Your task to perform on an android device: When is my next appointment? Image 0: 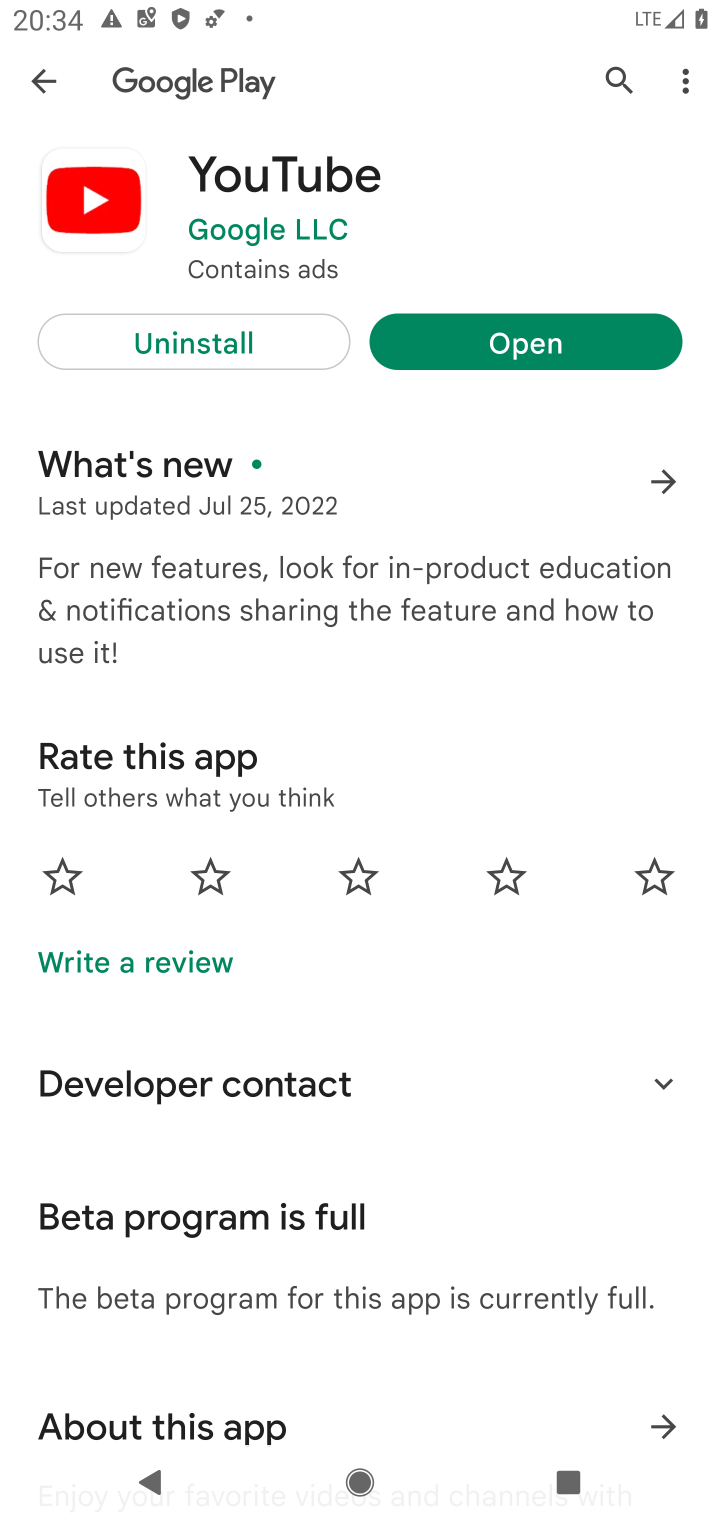
Step 0: press home button
Your task to perform on an android device: When is my next appointment? Image 1: 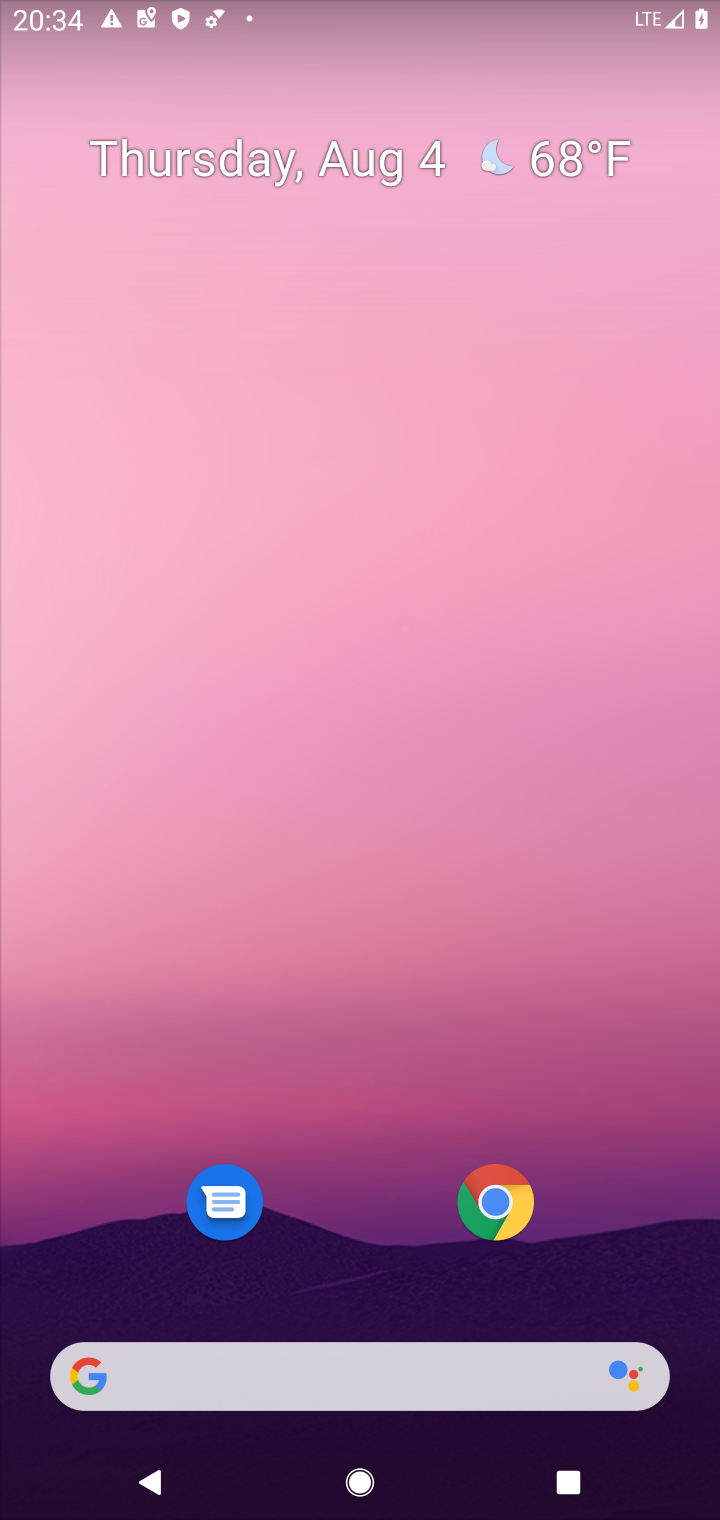
Step 1: drag from (341, 1201) to (343, 203)
Your task to perform on an android device: When is my next appointment? Image 2: 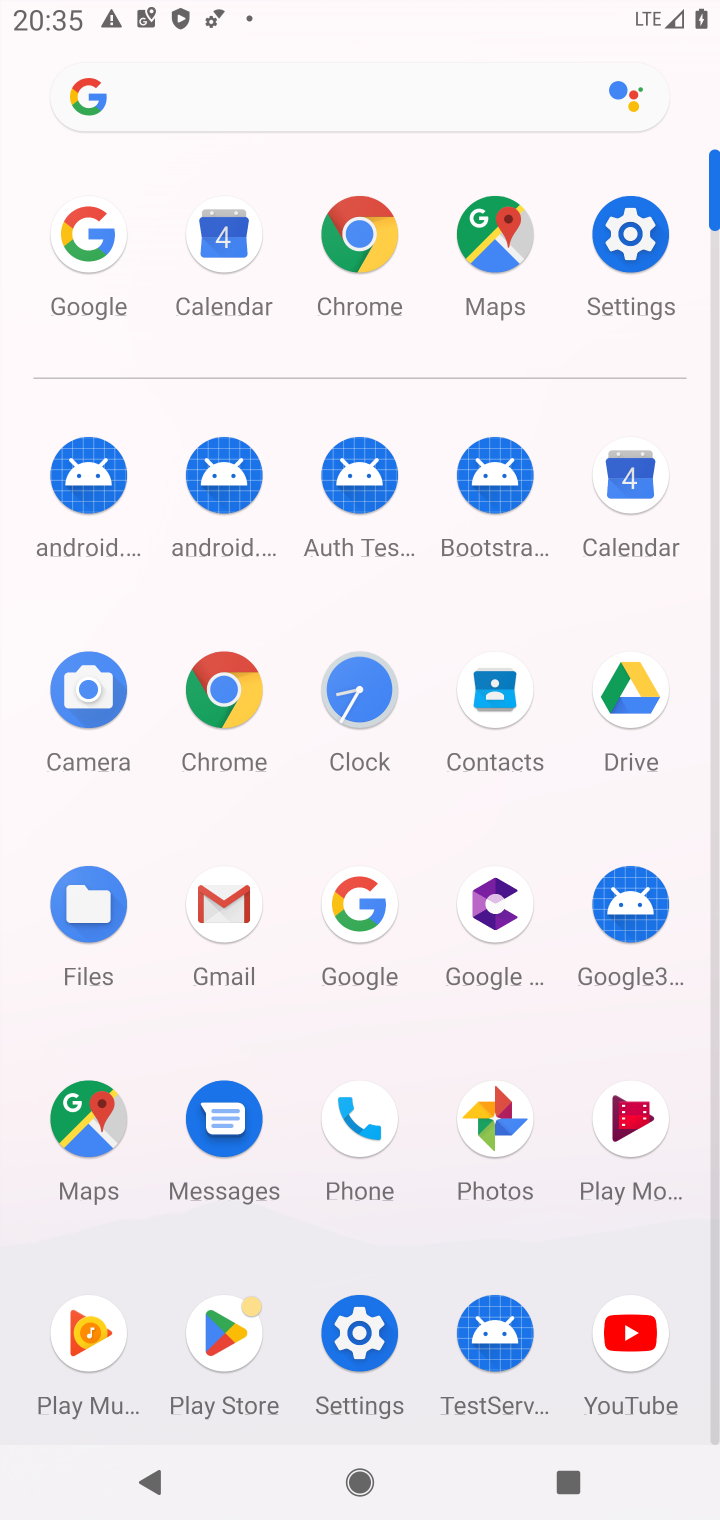
Step 2: click (627, 514)
Your task to perform on an android device: When is my next appointment? Image 3: 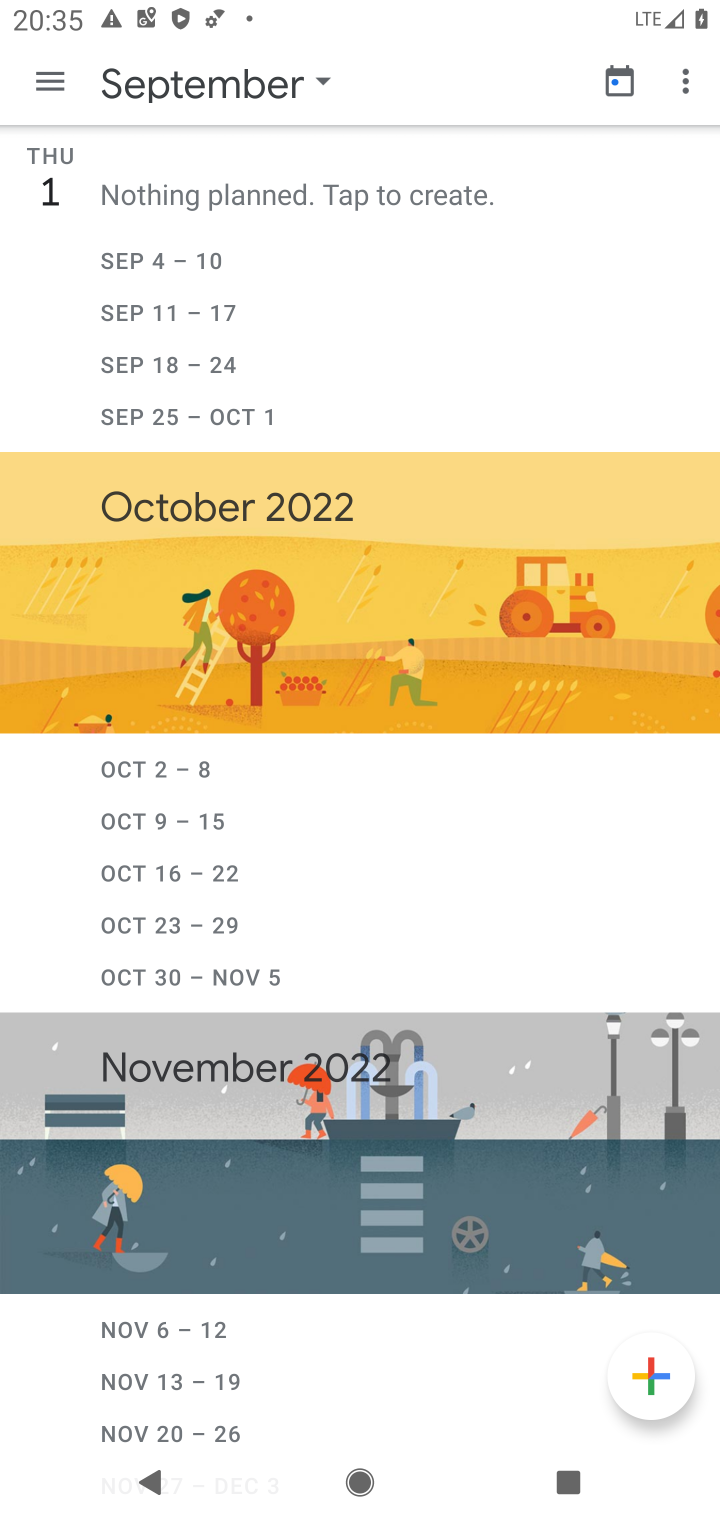
Step 3: click (305, 86)
Your task to perform on an android device: When is my next appointment? Image 4: 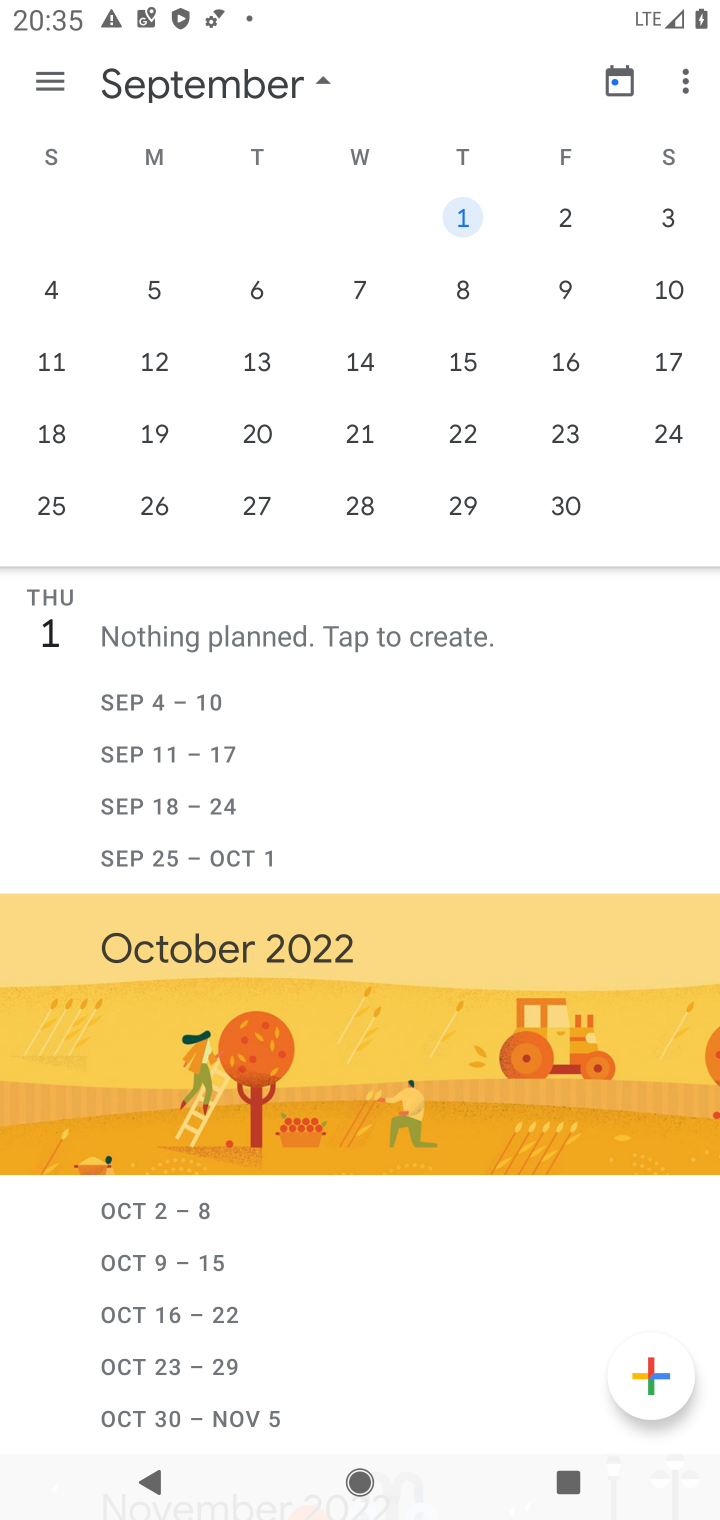
Step 4: click (296, 102)
Your task to perform on an android device: When is my next appointment? Image 5: 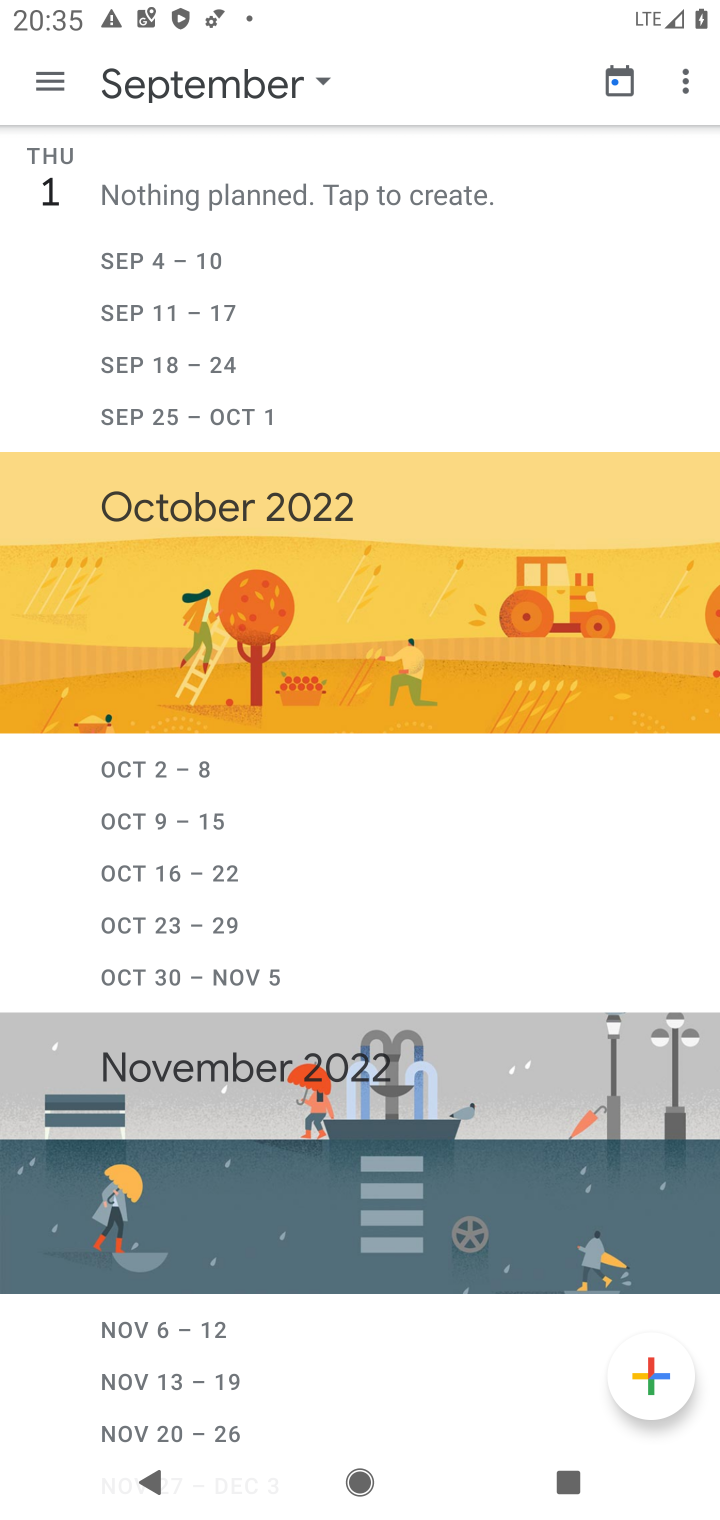
Step 5: click (296, 102)
Your task to perform on an android device: When is my next appointment? Image 6: 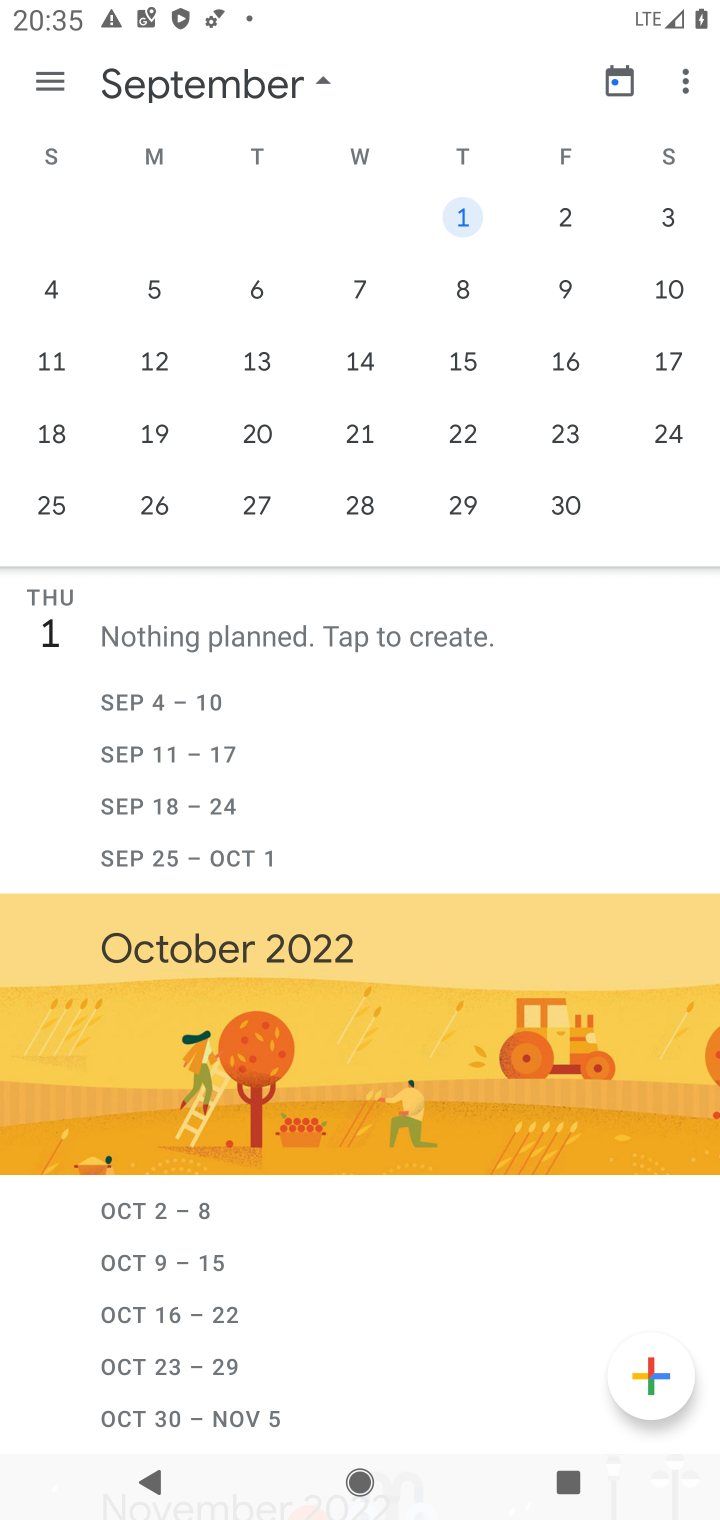
Step 6: drag from (113, 351) to (598, 343)
Your task to perform on an android device: When is my next appointment? Image 7: 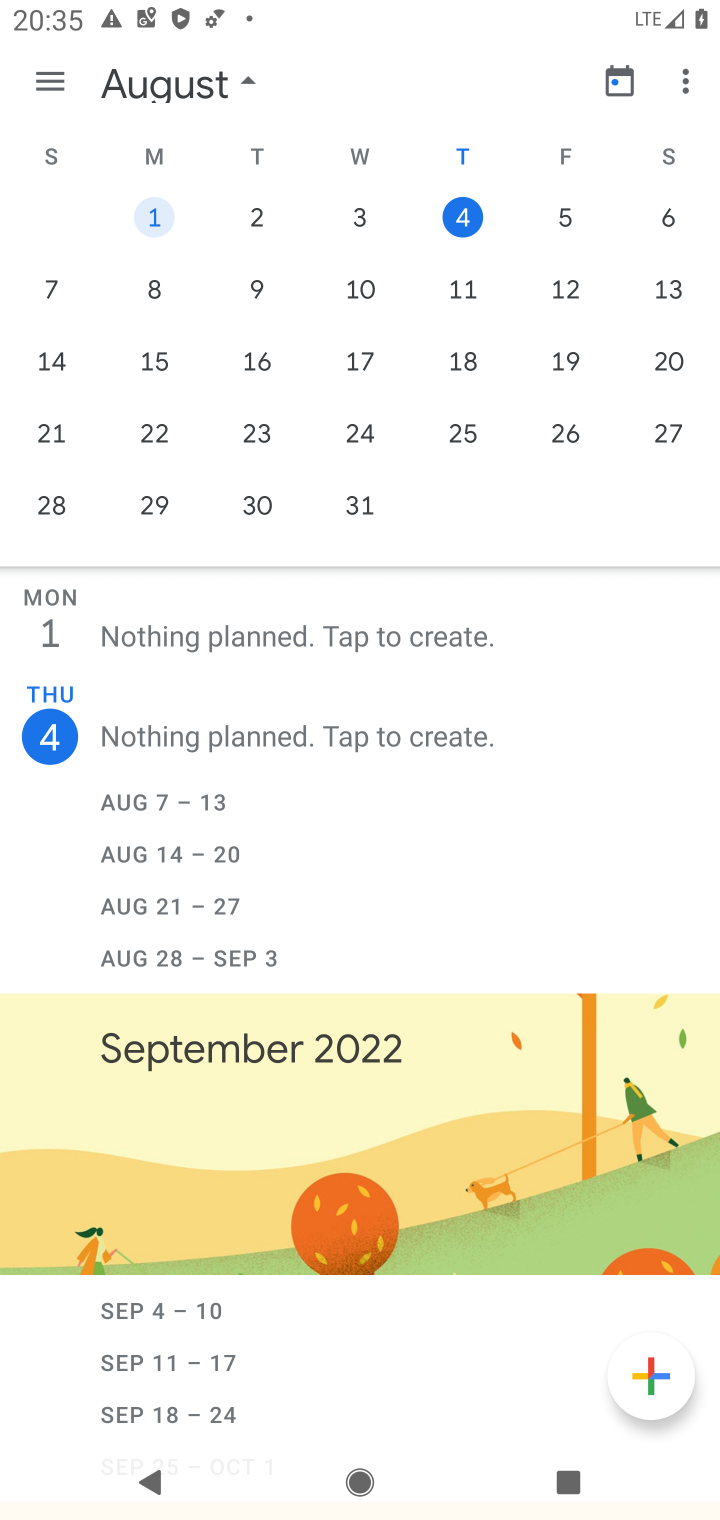
Step 7: click (535, 214)
Your task to perform on an android device: When is my next appointment? Image 8: 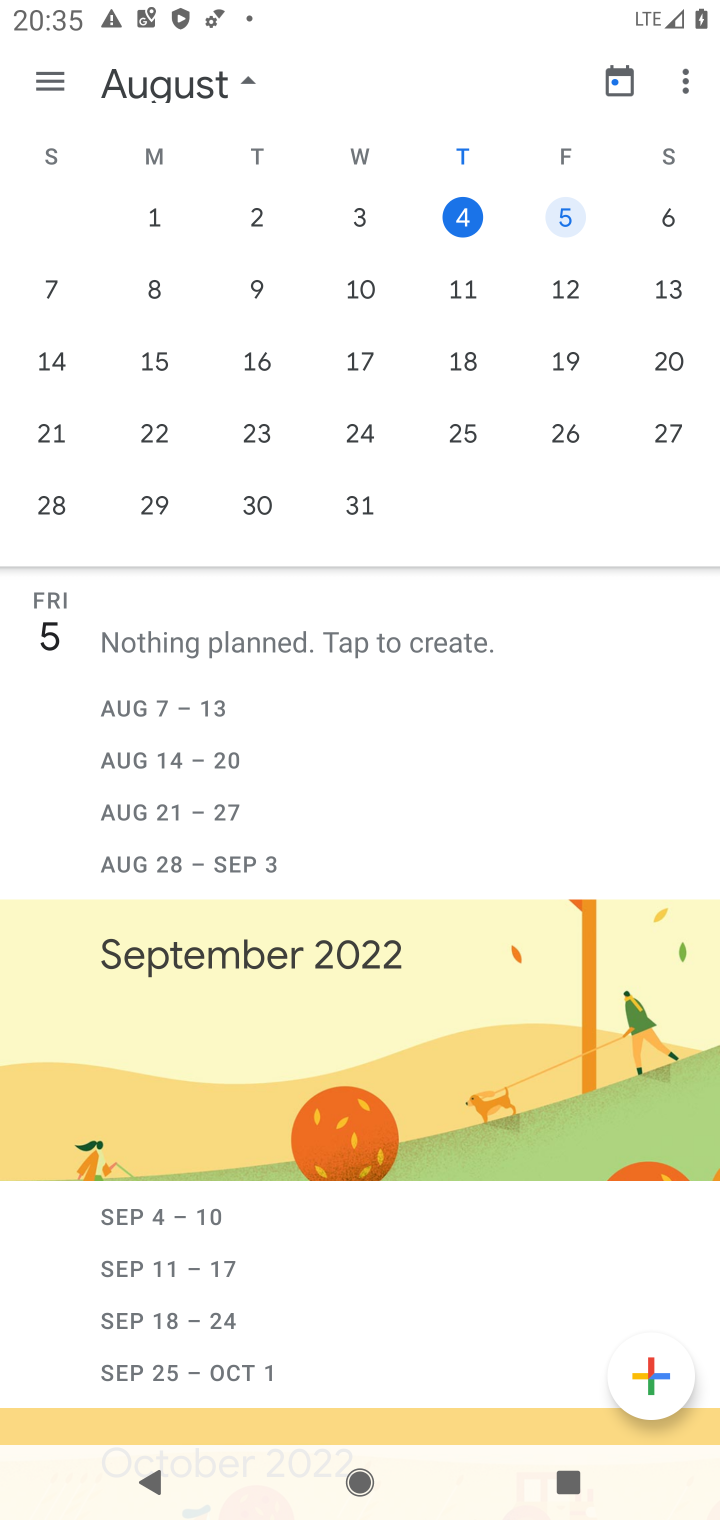
Step 8: click (645, 209)
Your task to perform on an android device: When is my next appointment? Image 9: 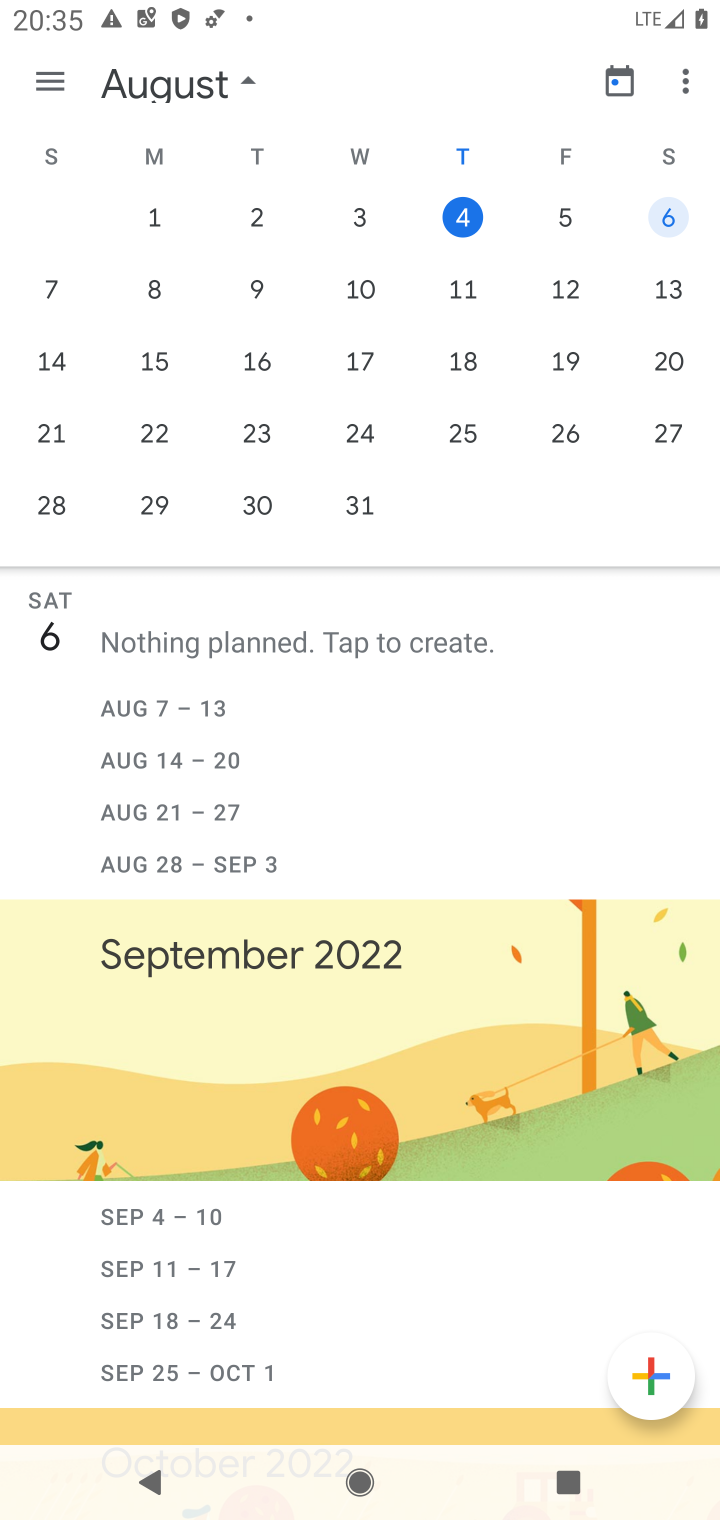
Step 9: click (73, 281)
Your task to perform on an android device: When is my next appointment? Image 10: 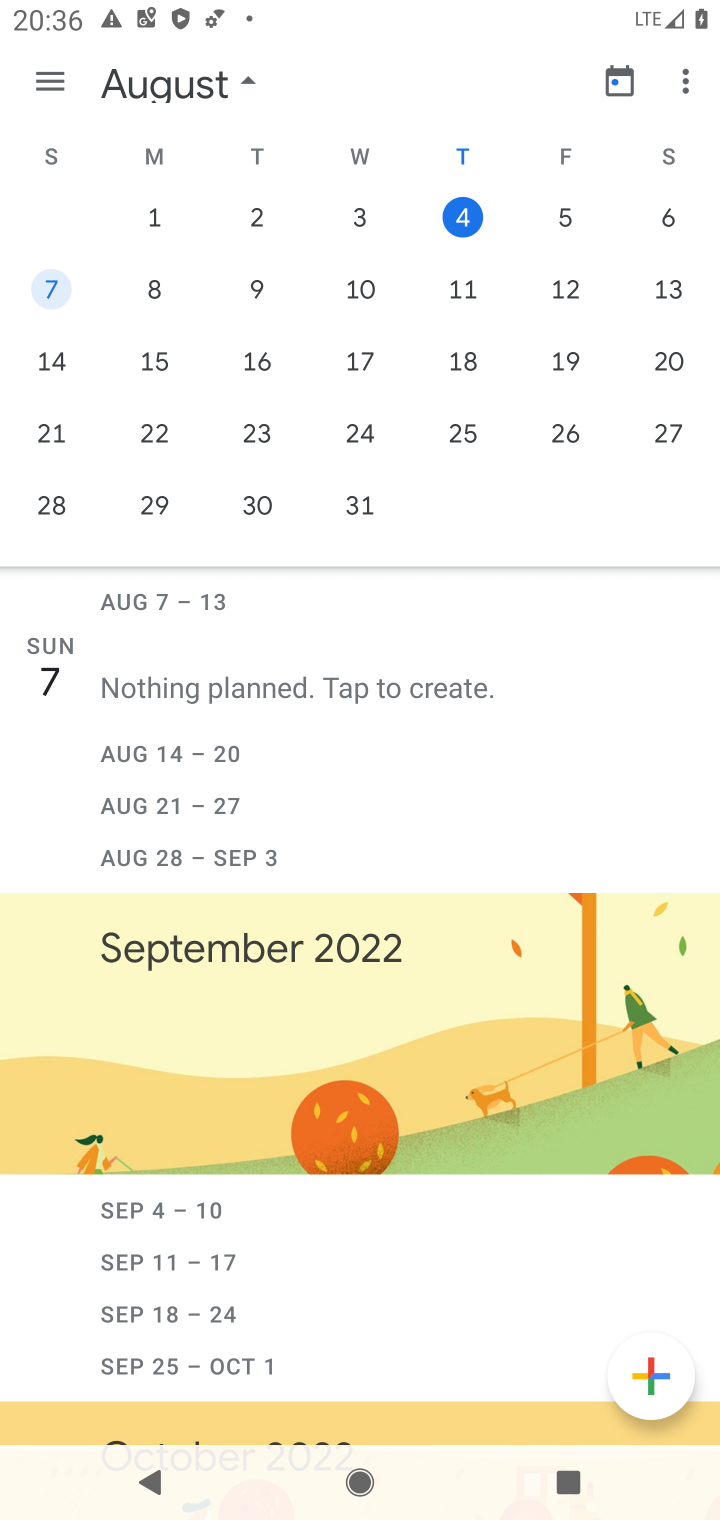
Step 10: task complete